Your task to perform on an android device: Open the stopwatch Image 0: 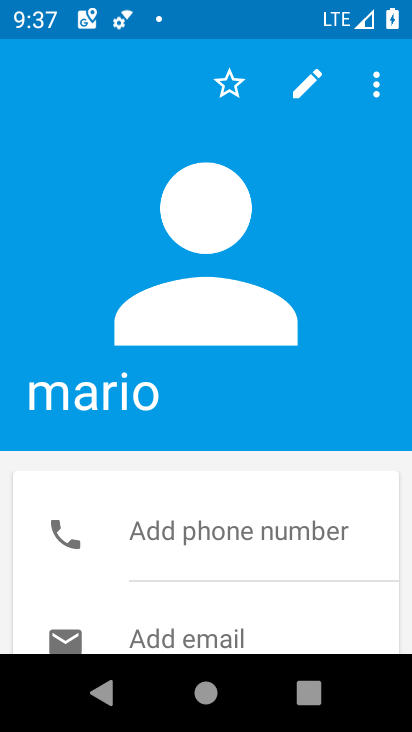
Step 0: press home button
Your task to perform on an android device: Open the stopwatch Image 1: 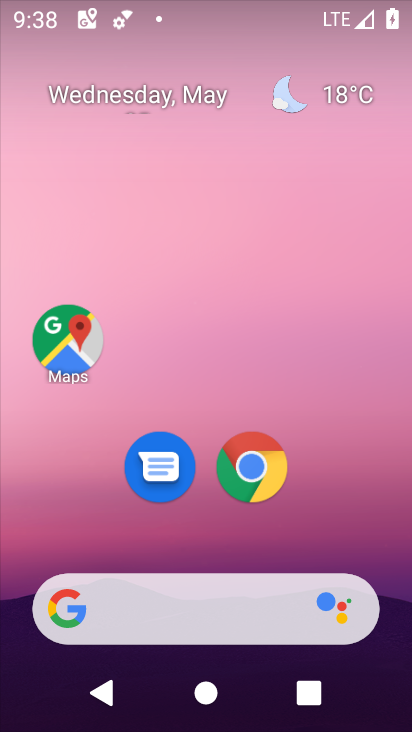
Step 1: drag from (314, 521) to (371, 74)
Your task to perform on an android device: Open the stopwatch Image 2: 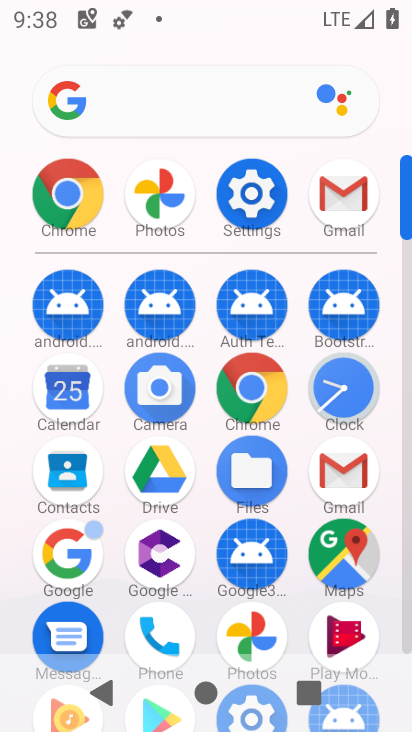
Step 2: click (340, 380)
Your task to perform on an android device: Open the stopwatch Image 3: 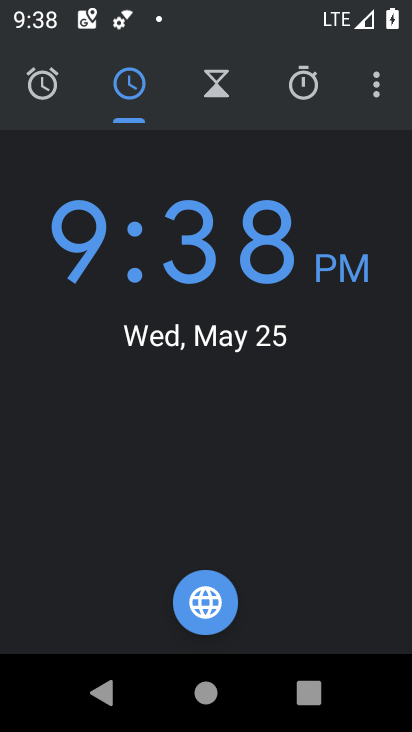
Step 3: click (318, 80)
Your task to perform on an android device: Open the stopwatch Image 4: 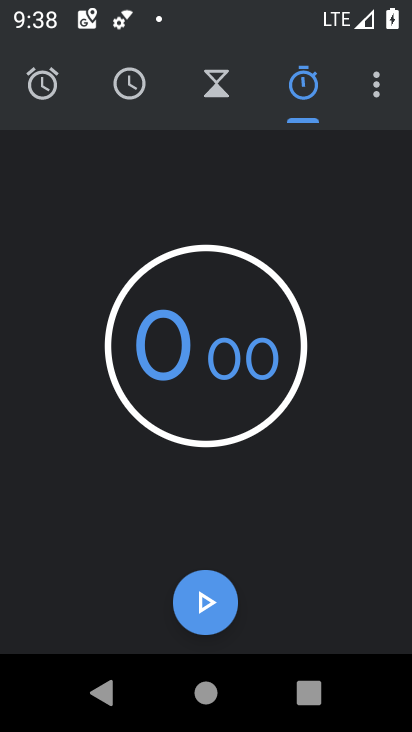
Step 4: task complete